Your task to perform on an android device: toggle translation in the chrome app Image 0: 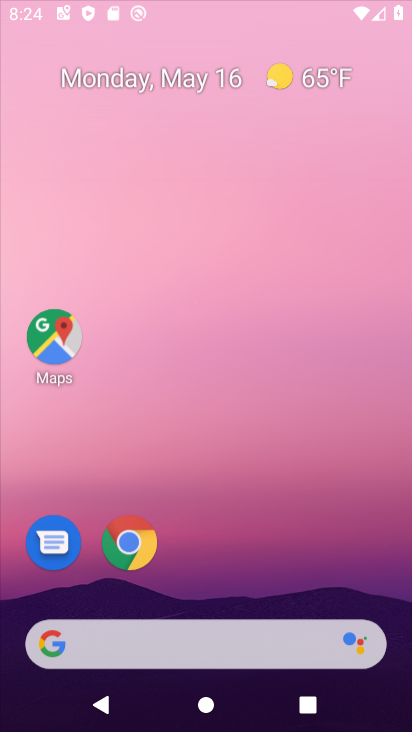
Step 0: drag from (293, 575) to (292, 246)
Your task to perform on an android device: toggle translation in the chrome app Image 1: 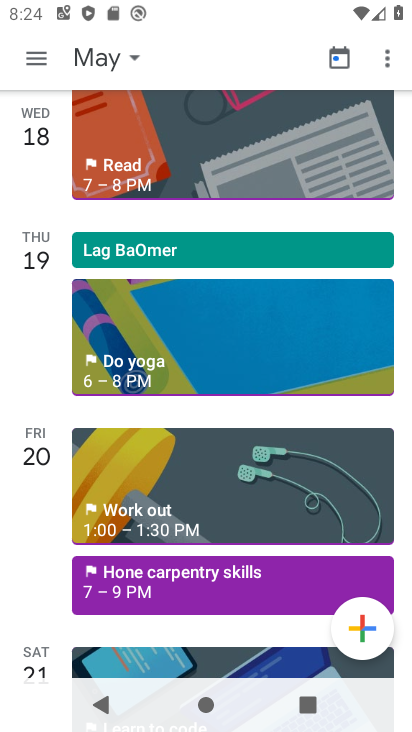
Step 1: press home button
Your task to perform on an android device: toggle translation in the chrome app Image 2: 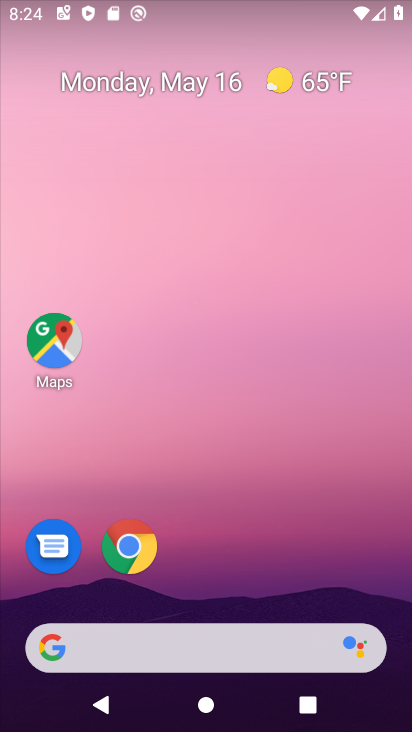
Step 2: click (112, 552)
Your task to perform on an android device: toggle translation in the chrome app Image 3: 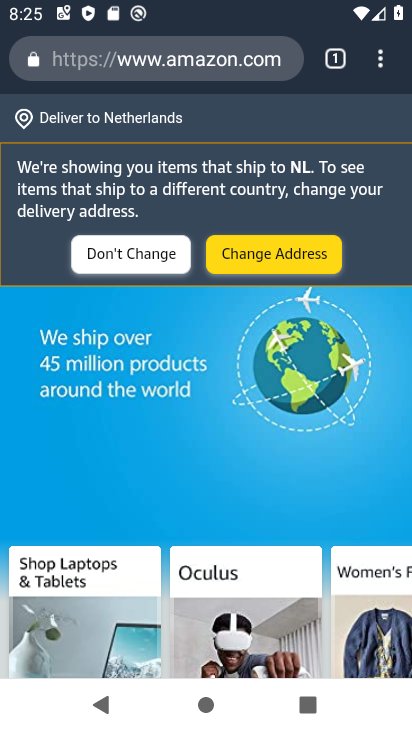
Step 3: click (389, 59)
Your task to perform on an android device: toggle translation in the chrome app Image 4: 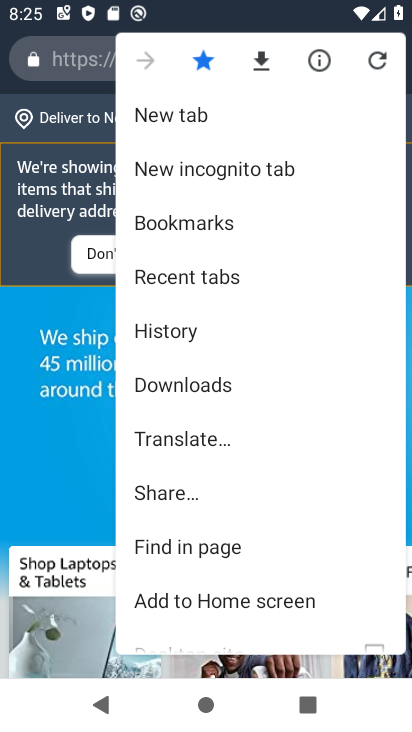
Step 4: drag from (264, 560) to (268, 267)
Your task to perform on an android device: toggle translation in the chrome app Image 5: 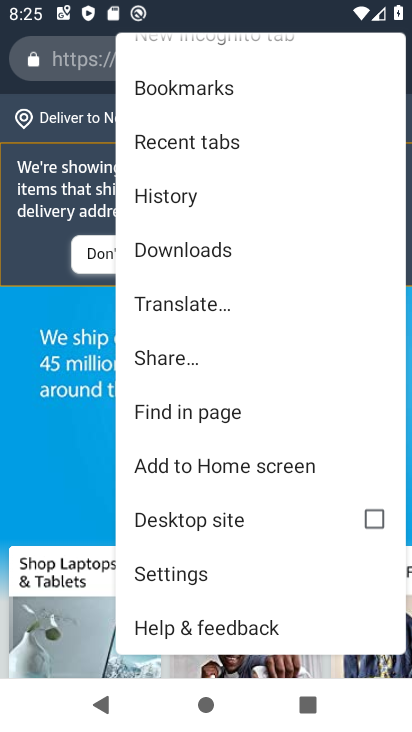
Step 5: click (221, 571)
Your task to perform on an android device: toggle translation in the chrome app Image 6: 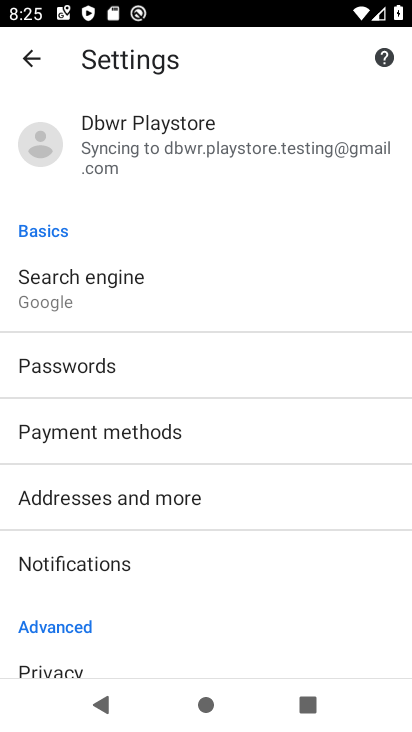
Step 6: drag from (210, 551) to (210, 474)
Your task to perform on an android device: toggle translation in the chrome app Image 7: 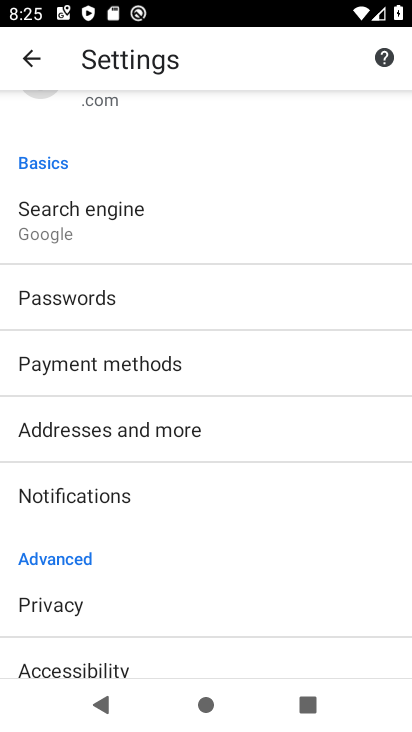
Step 7: drag from (193, 611) to (214, 184)
Your task to perform on an android device: toggle translation in the chrome app Image 8: 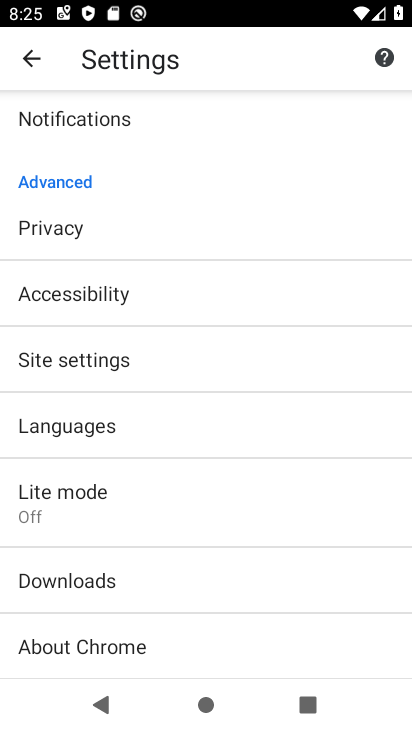
Step 8: click (191, 419)
Your task to perform on an android device: toggle translation in the chrome app Image 9: 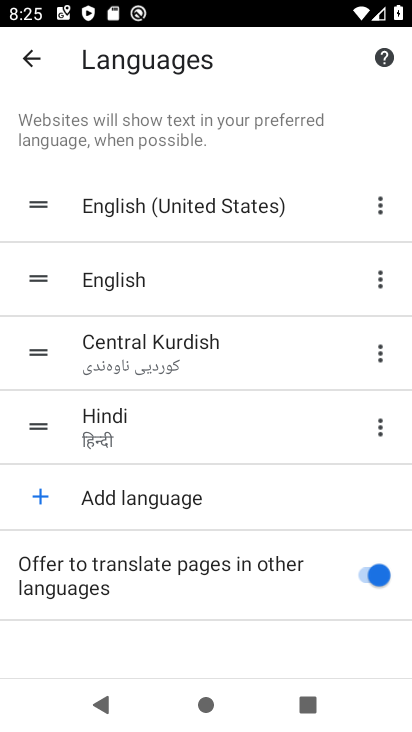
Step 9: click (336, 575)
Your task to perform on an android device: toggle translation in the chrome app Image 10: 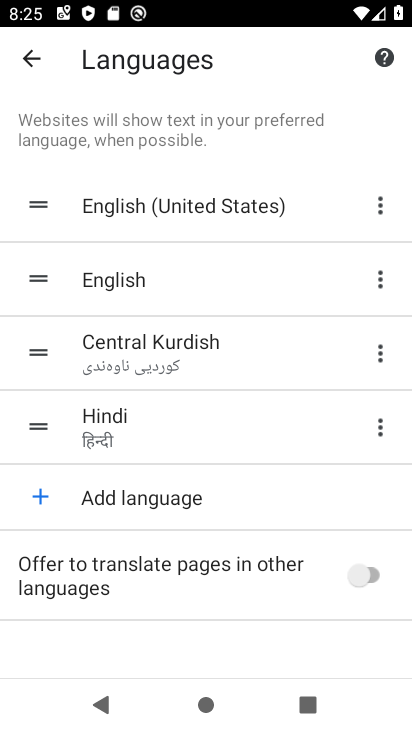
Step 10: task complete